Your task to perform on an android device: Open eBay Image 0: 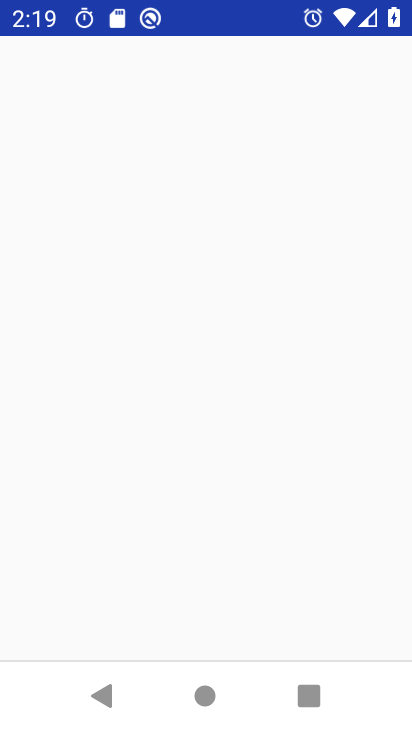
Step 0: drag from (357, 532) to (355, 248)
Your task to perform on an android device: Open eBay Image 1: 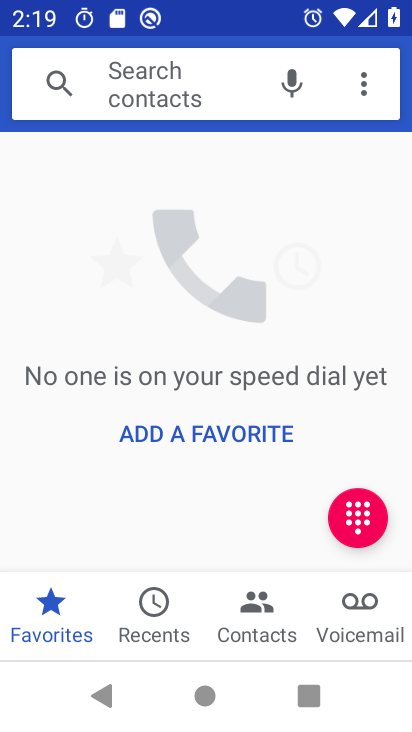
Step 1: press home button
Your task to perform on an android device: Open eBay Image 2: 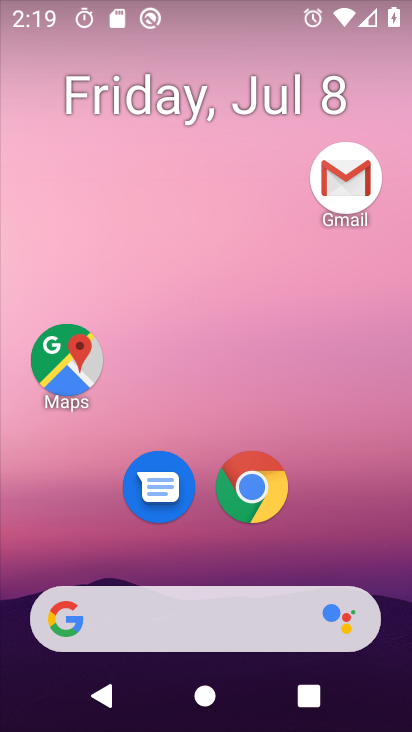
Step 2: drag from (359, 507) to (384, 106)
Your task to perform on an android device: Open eBay Image 3: 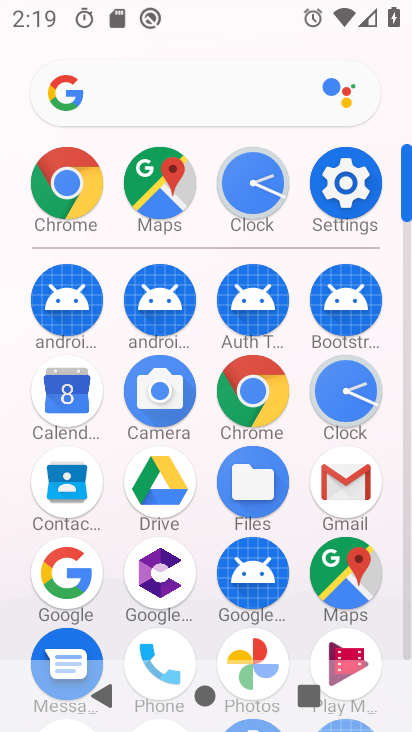
Step 3: click (260, 397)
Your task to perform on an android device: Open eBay Image 4: 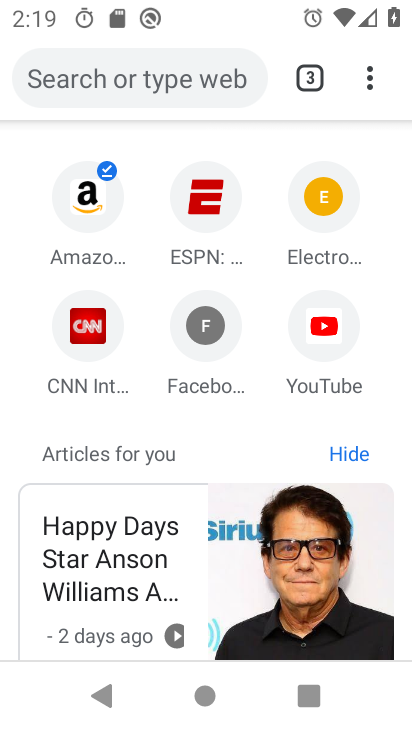
Step 4: click (178, 57)
Your task to perform on an android device: Open eBay Image 5: 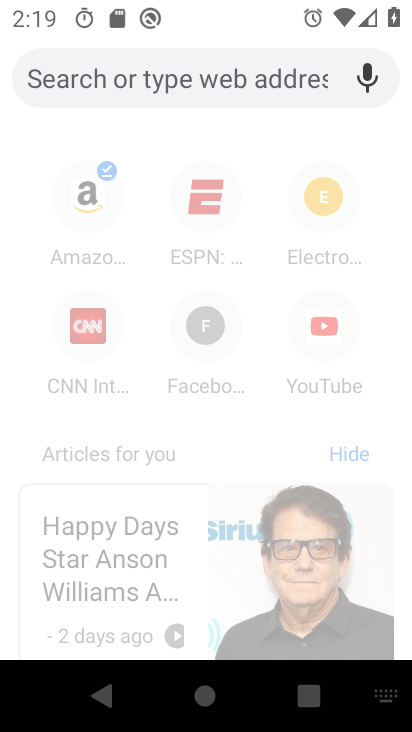
Step 5: type "ebay"
Your task to perform on an android device: Open eBay Image 6: 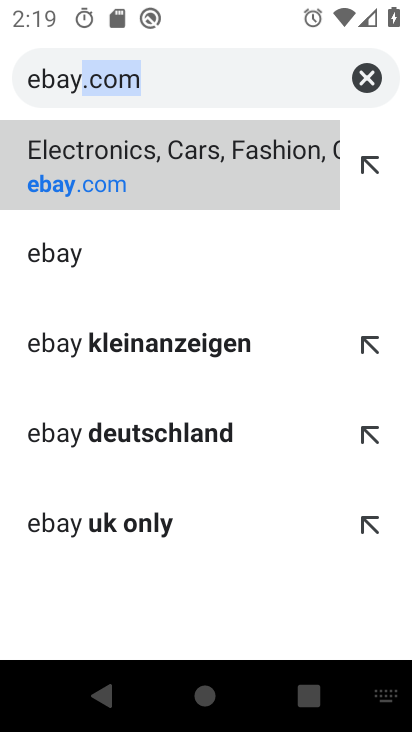
Step 6: click (271, 183)
Your task to perform on an android device: Open eBay Image 7: 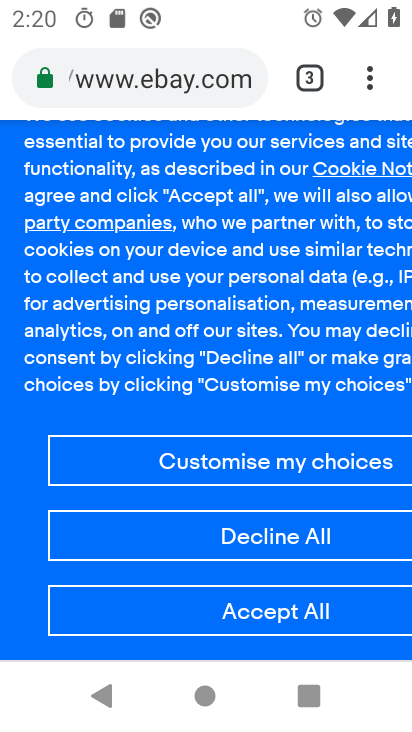
Step 7: task complete